Your task to perform on an android device: change the clock display to digital Image 0: 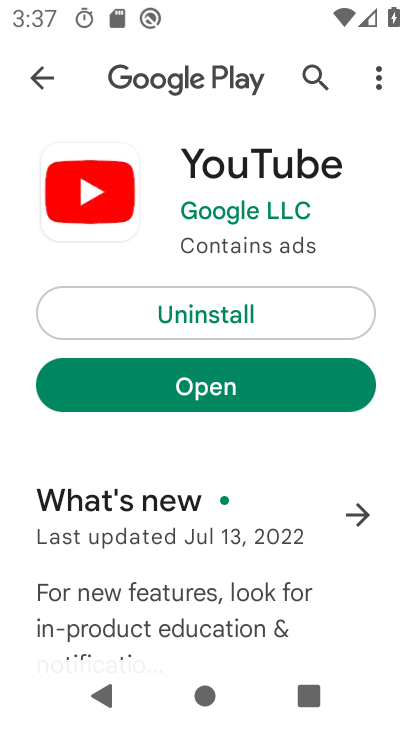
Step 0: press home button
Your task to perform on an android device: change the clock display to digital Image 1: 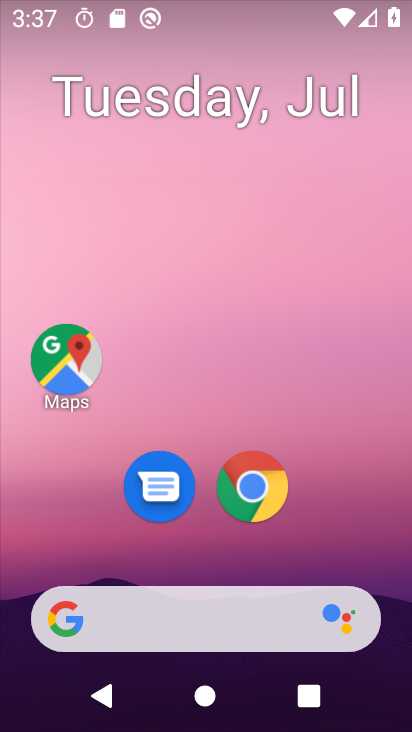
Step 1: drag from (354, 548) to (352, 86)
Your task to perform on an android device: change the clock display to digital Image 2: 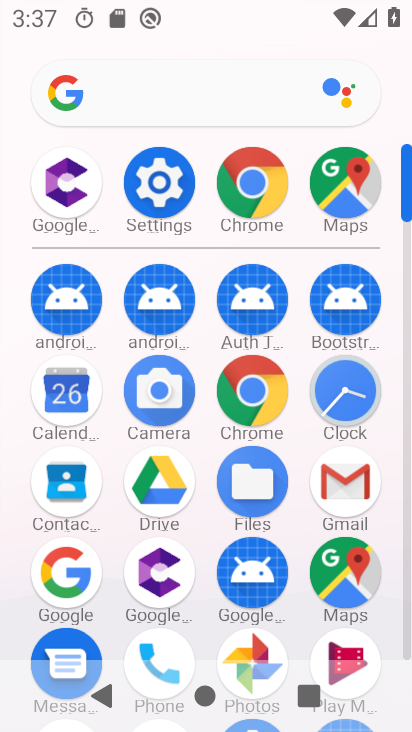
Step 2: click (349, 382)
Your task to perform on an android device: change the clock display to digital Image 3: 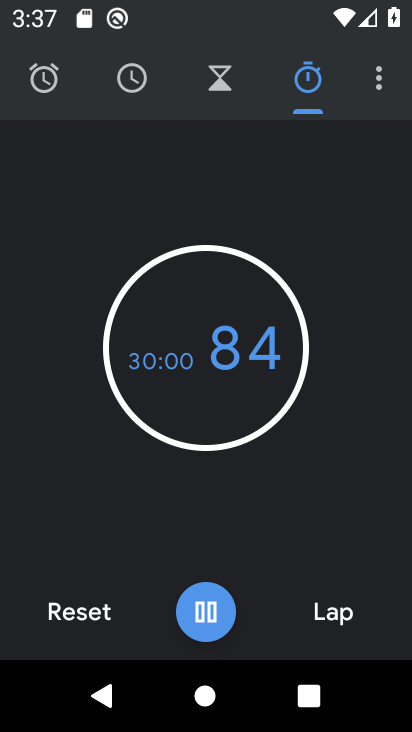
Step 3: click (380, 92)
Your task to perform on an android device: change the clock display to digital Image 4: 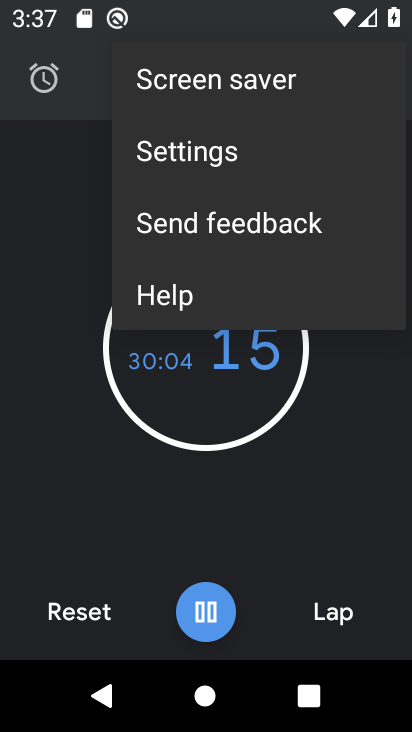
Step 4: click (295, 174)
Your task to perform on an android device: change the clock display to digital Image 5: 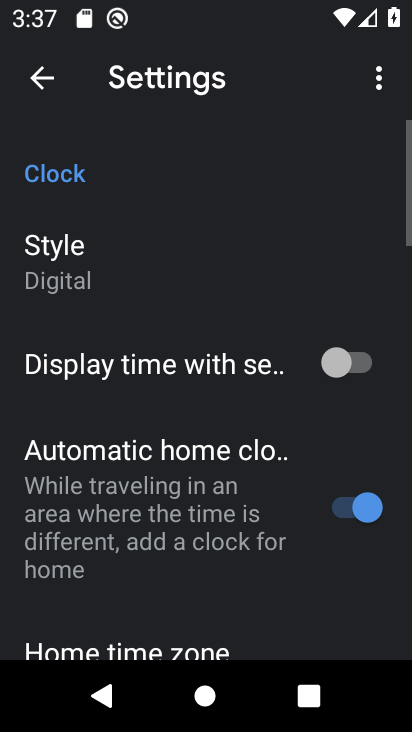
Step 5: task complete